Your task to perform on an android device: turn on the 24-hour format for clock Image 0: 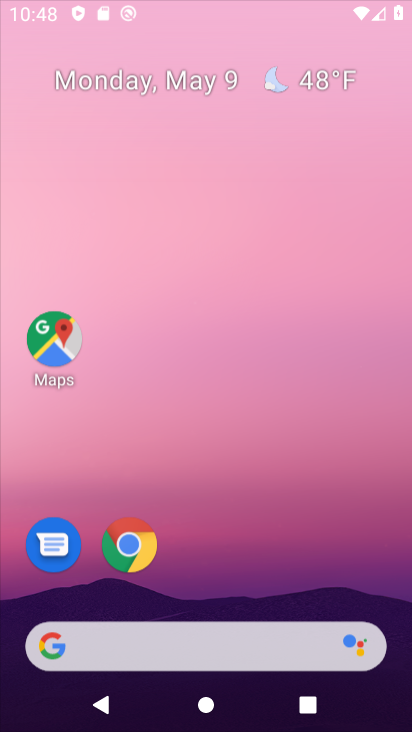
Step 0: drag from (204, 538) to (203, 250)
Your task to perform on an android device: turn on the 24-hour format for clock Image 1: 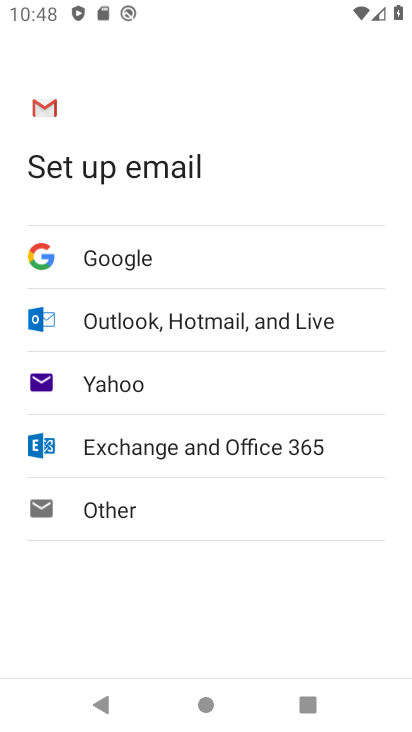
Step 1: press home button
Your task to perform on an android device: turn on the 24-hour format for clock Image 2: 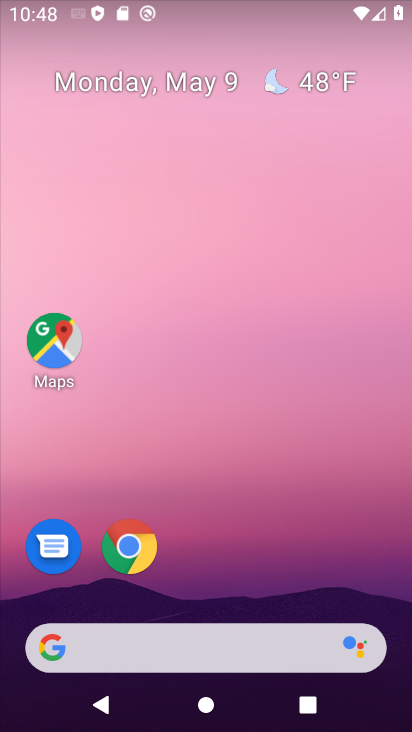
Step 2: drag from (217, 725) to (214, 301)
Your task to perform on an android device: turn on the 24-hour format for clock Image 3: 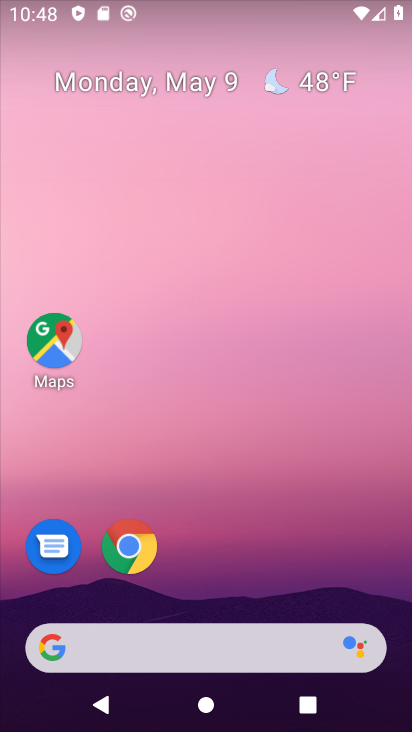
Step 3: drag from (219, 724) to (207, 228)
Your task to perform on an android device: turn on the 24-hour format for clock Image 4: 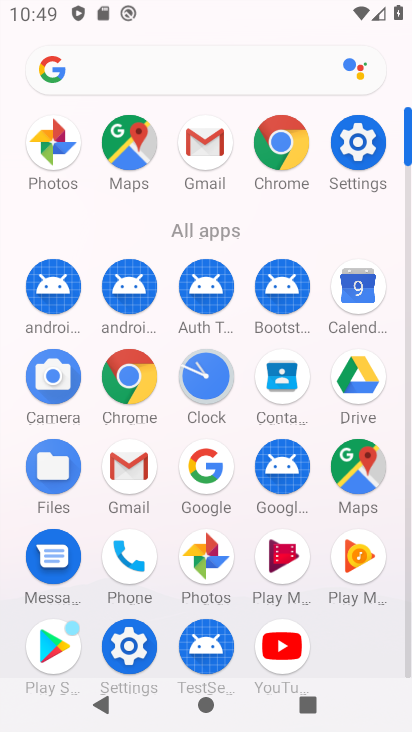
Step 4: click (202, 383)
Your task to perform on an android device: turn on the 24-hour format for clock Image 5: 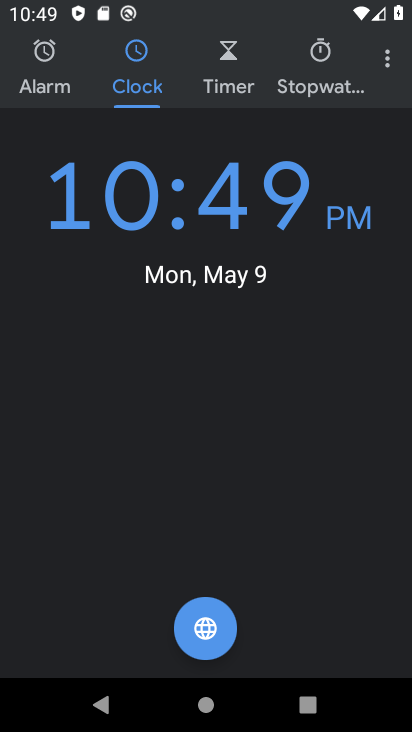
Step 5: click (383, 59)
Your task to perform on an android device: turn on the 24-hour format for clock Image 6: 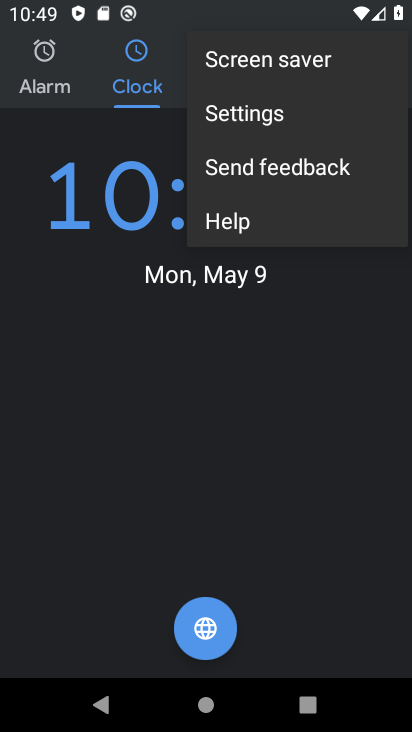
Step 6: click (273, 118)
Your task to perform on an android device: turn on the 24-hour format for clock Image 7: 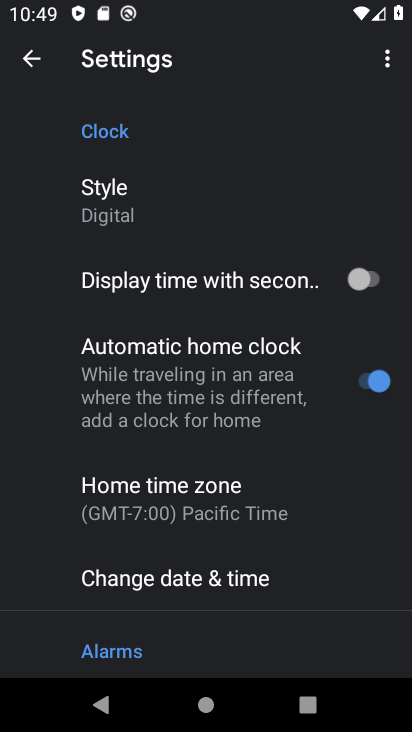
Step 7: drag from (190, 630) to (186, 384)
Your task to perform on an android device: turn on the 24-hour format for clock Image 8: 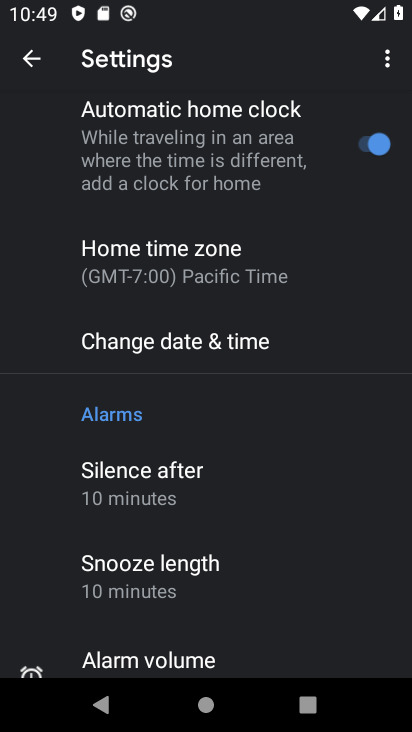
Step 8: click (211, 337)
Your task to perform on an android device: turn on the 24-hour format for clock Image 9: 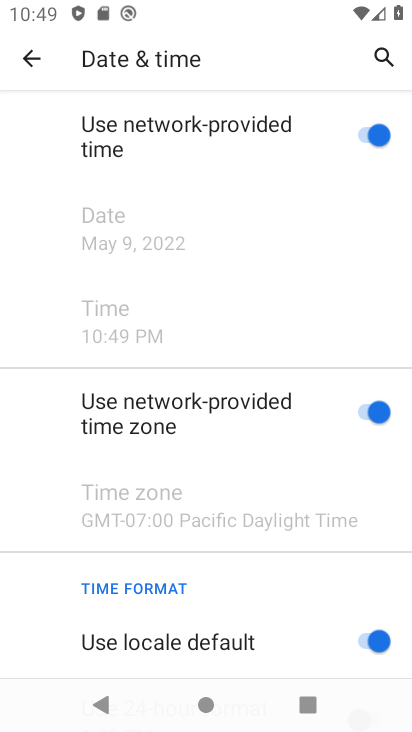
Step 9: drag from (229, 642) to (231, 280)
Your task to perform on an android device: turn on the 24-hour format for clock Image 10: 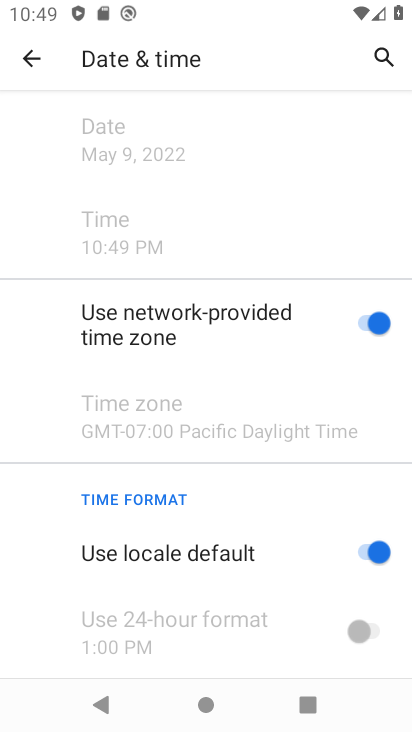
Step 10: click (369, 559)
Your task to perform on an android device: turn on the 24-hour format for clock Image 11: 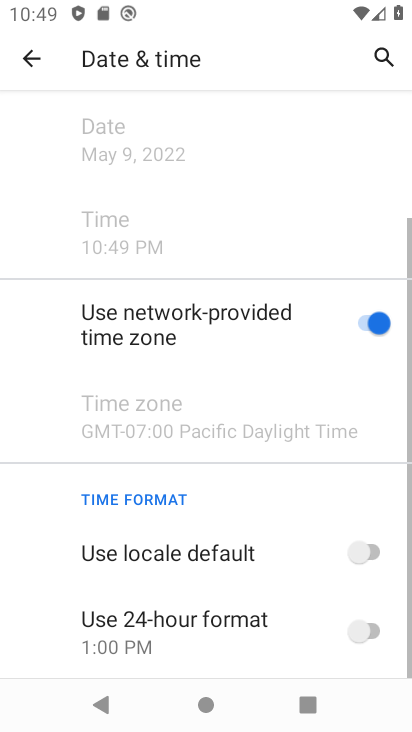
Step 11: click (376, 631)
Your task to perform on an android device: turn on the 24-hour format for clock Image 12: 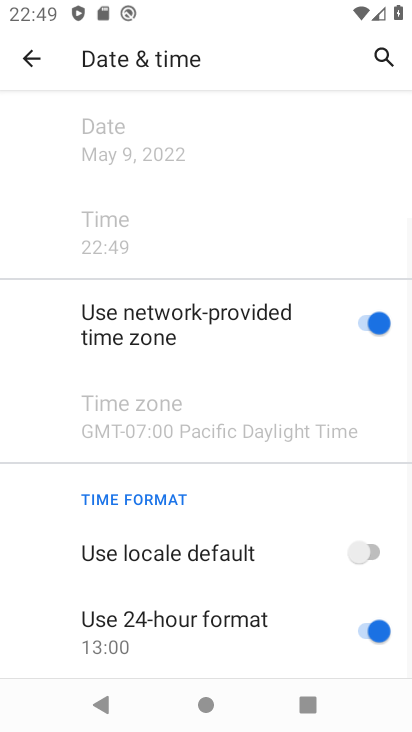
Step 12: task complete